Your task to perform on an android device: Show the shopping cart on ebay. Add logitech g910 to the cart on ebay, then select checkout. Image 0: 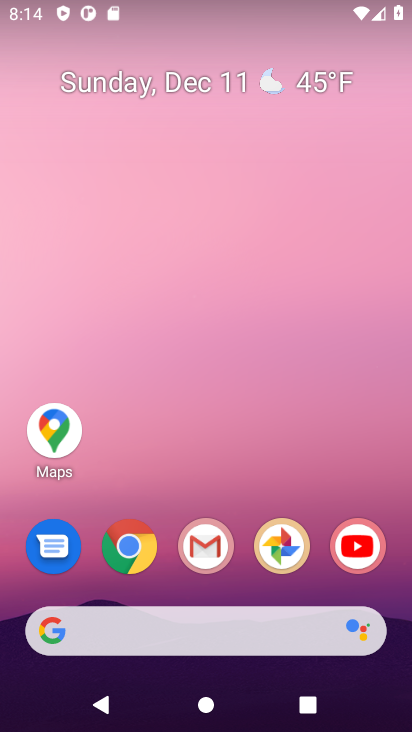
Step 0: click (125, 555)
Your task to perform on an android device: Show the shopping cart on ebay. Add logitech g910 to the cart on ebay, then select checkout. Image 1: 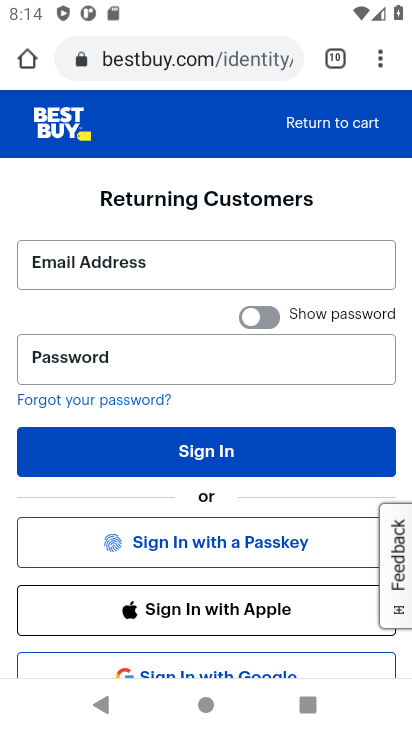
Step 1: click (155, 56)
Your task to perform on an android device: Show the shopping cart on ebay. Add logitech g910 to the cart on ebay, then select checkout. Image 2: 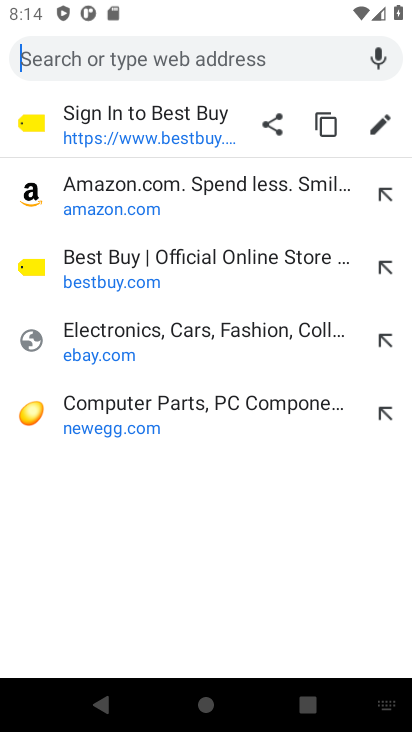
Step 2: click (87, 337)
Your task to perform on an android device: Show the shopping cart on ebay. Add logitech g910 to the cart on ebay, then select checkout. Image 3: 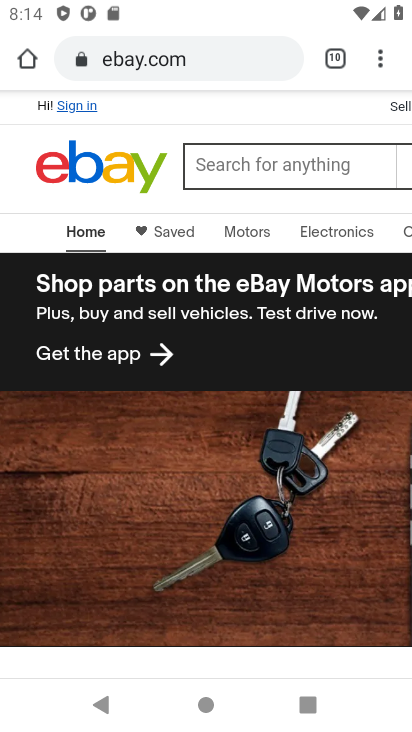
Step 3: drag from (314, 133) to (107, 141)
Your task to perform on an android device: Show the shopping cart on ebay. Add logitech g910 to the cart on ebay, then select checkout. Image 4: 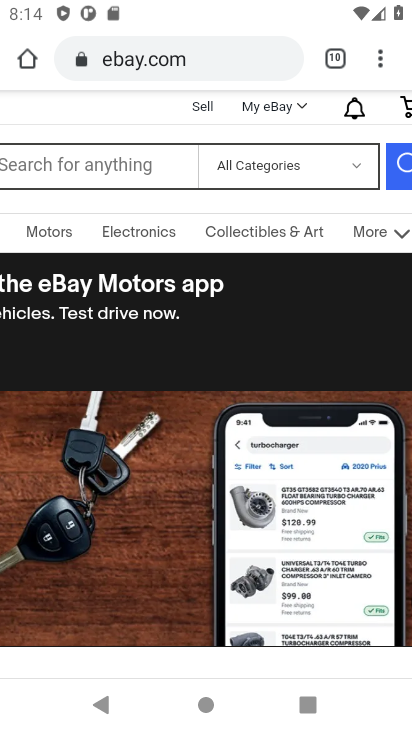
Step 4: drag from (347, 133) to (72, 132)
Your task to perform on an android device: Show the shopping cart on ebay. Add logitech g910 to the cart on ebay, then select checkout. Image 5: 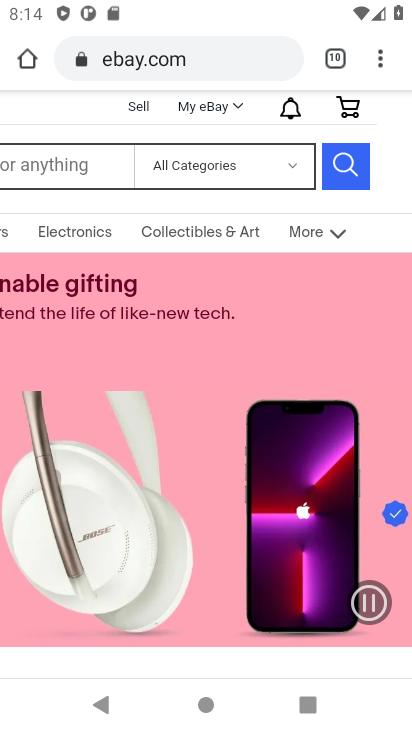
Step 5: click (347, 109)
Your task to perform on an android device: Show the shopping cart on ebay. Add logitech g910 to the cart on ebay, then select checkout. Image 6: 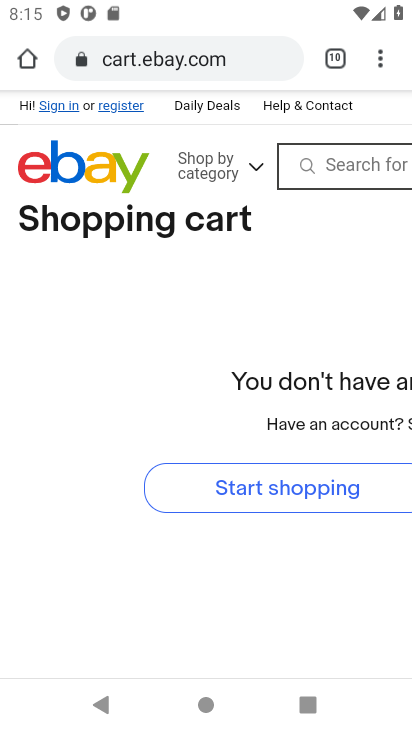
Step 6: click (351, 169)
Your task to perform on an android device: Show the shopping cart on ebay. Add logitech g910 to the cart on ebay, then select checkout. Image 7: 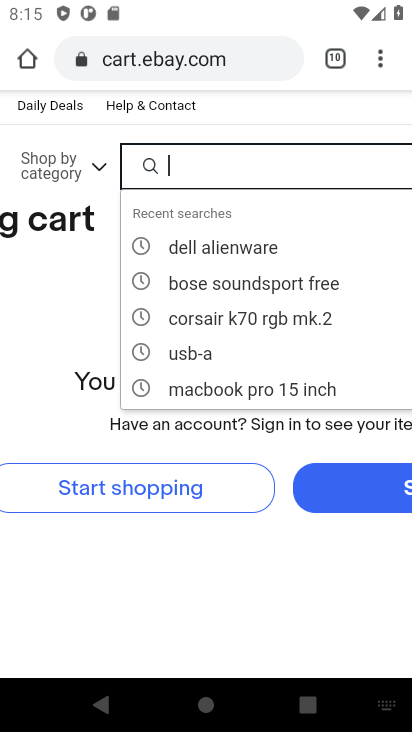
Step 7: type "logitech g910"
Your task to perform on an android device: Show the shopping cart on ebay. Add logitech g910 to the cart on ebay, then select checkout. Image 8: 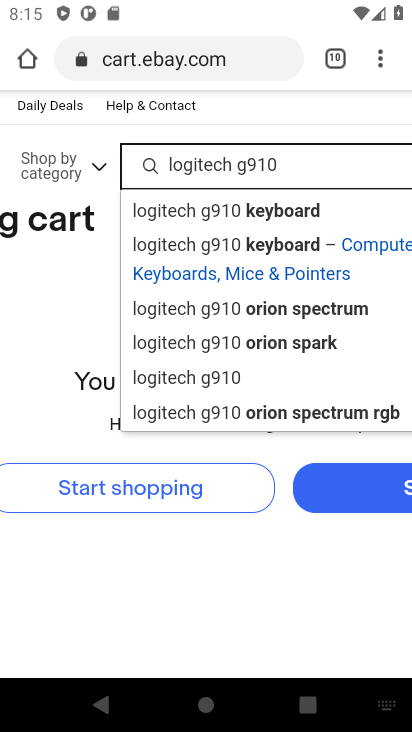
Step 8: click (231, 373)
Your task to perform on an android device: Show the shopping cart on ebay. Add logitech g910 to the cart on ebay, then select checkout. Image 9: 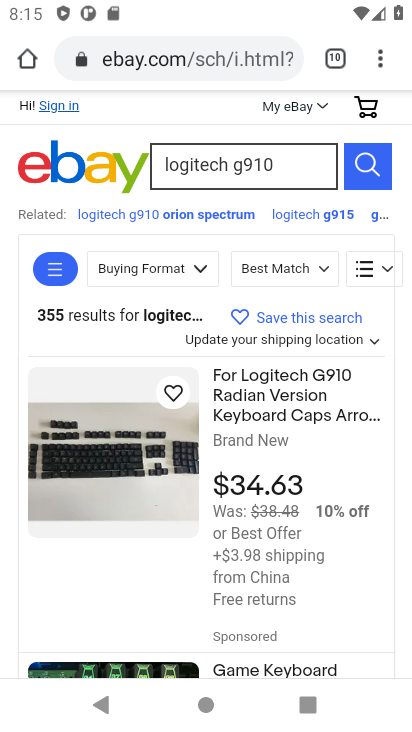
Step 9: drag from (155, 508) to (158, 348)
Your task to perform on an android device: Show the shopping cart on ebay. Add logitech g910 to the cart on ebay, then select checkout. Image 10: 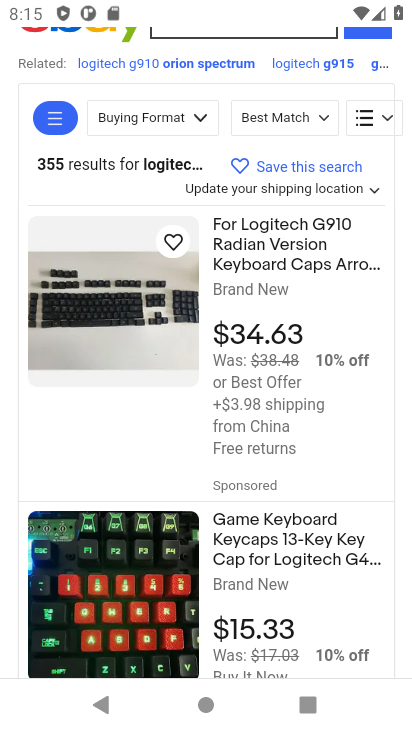
Step 10: click (275, 254)
Your task to perform on an android device: Show the shopping cart on ebay. Add logitech g910 to the cart on ebay, then select checkout. Image 11: 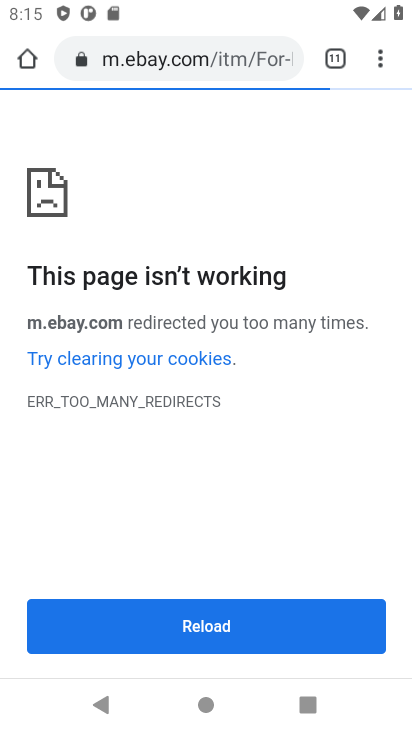
Step 11: task complete